Your task to perform on an android device: When is my next meeting? Image 0: 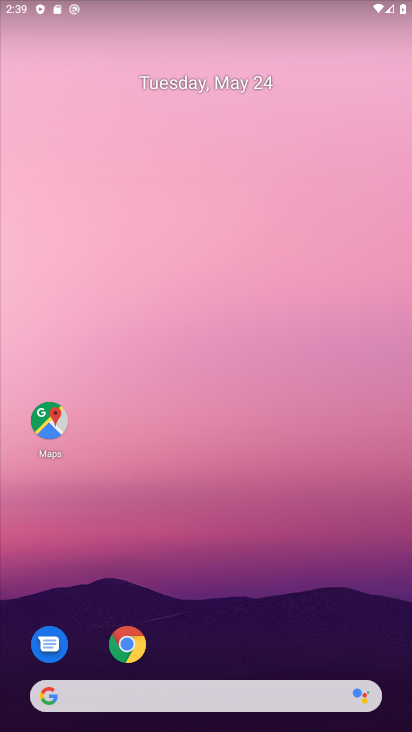
Step 0: drag from (318, 578) to (280, 115)
Your task to perform on an android device: When is my next meeting? Image 1: 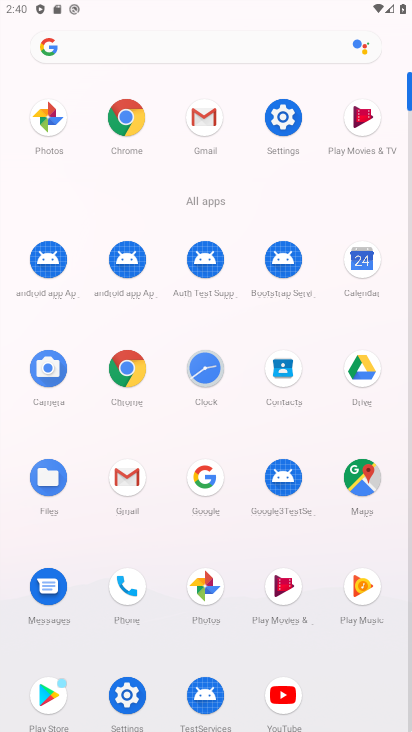
Step 1: click (365, 269)
Your task to perform on an android device: When is my next meeting? Image 2: 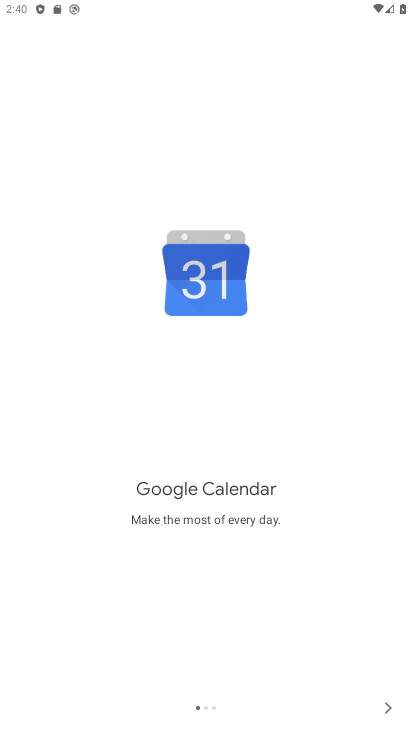
Step 2: click (388, 703)
Your task to perform on an android device: When is my next meeting? Image 3: 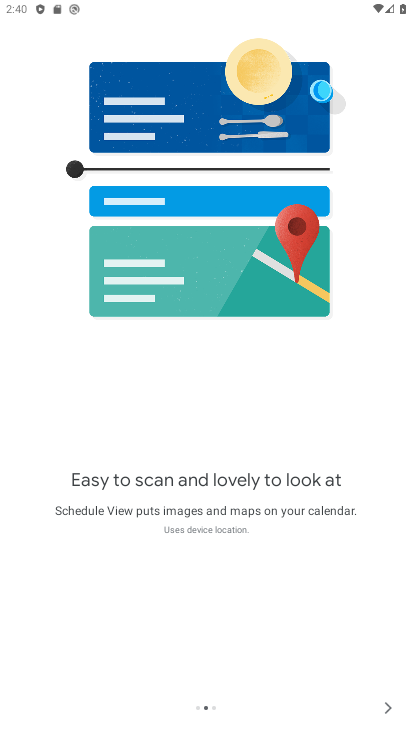
Step 3: click (389, 702)
Your task to perform on an android device: When is my next meeting? Image 4: 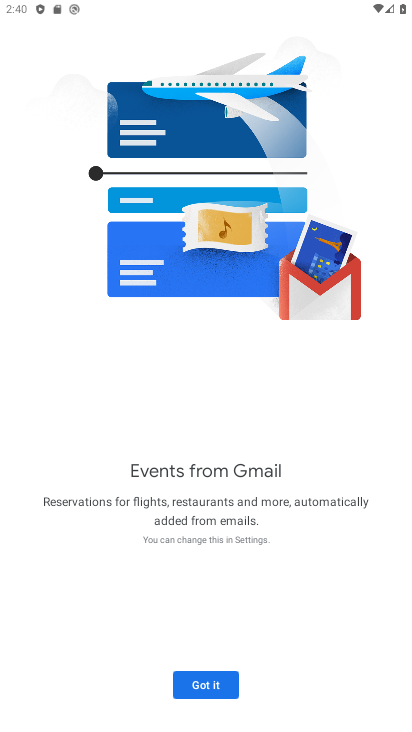
Step 4: click (389, 702)
Your task to perform on an android device: When is my next meeting? Image 5: 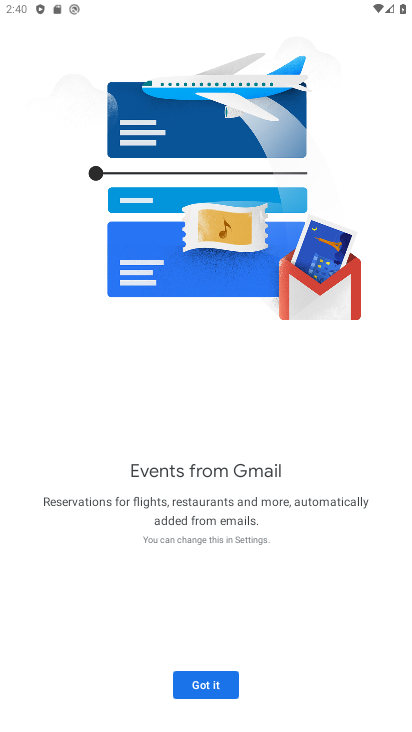
Step 5: click (214, 683)
Your task to perform on an android device: When is my next meeting? Image 6: 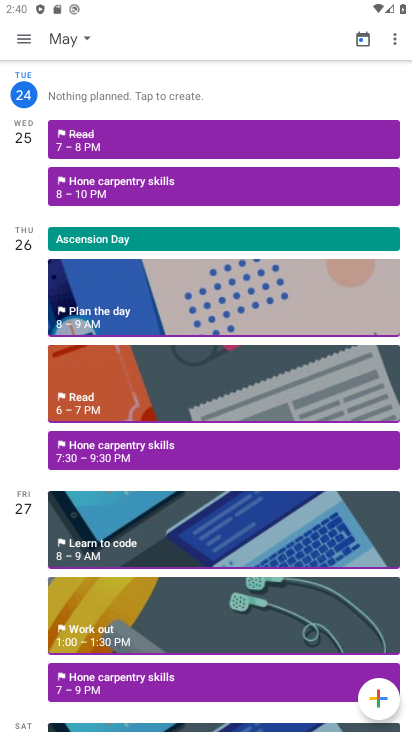
Step 6: drag from (244, 681) to (212, 327)
Your task to perform on an android device: When is my next meeting? Image 7: 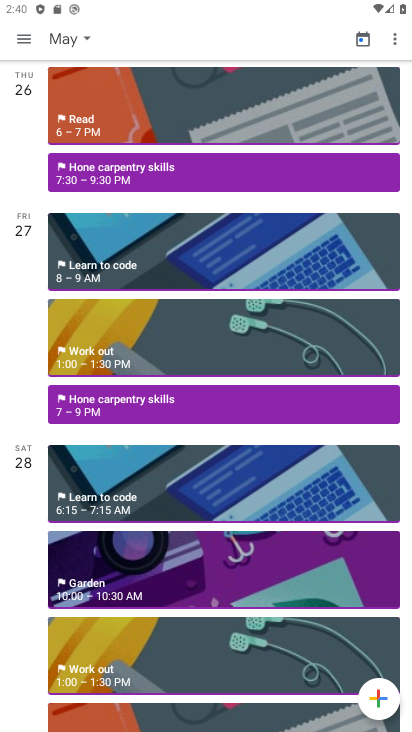
Step 7: drag from (147, 597) to (177, 304)
Your task to perform on an android device: When is my next meeting? Image 8: 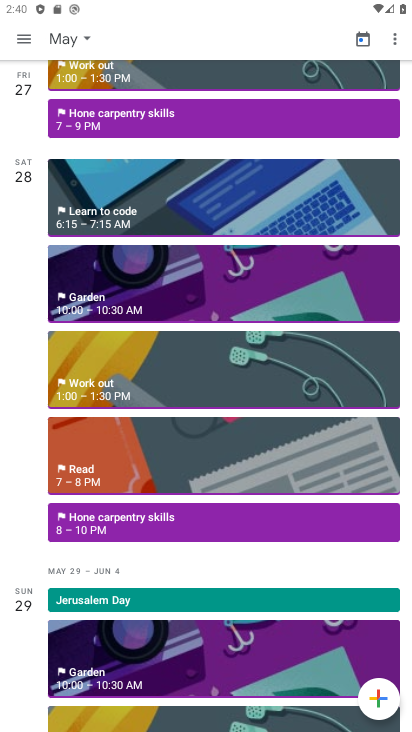
Step 8: drag from (205, 637) to (239, 333)
Your task to perform on an android device: When is my next meeting? Image 9: 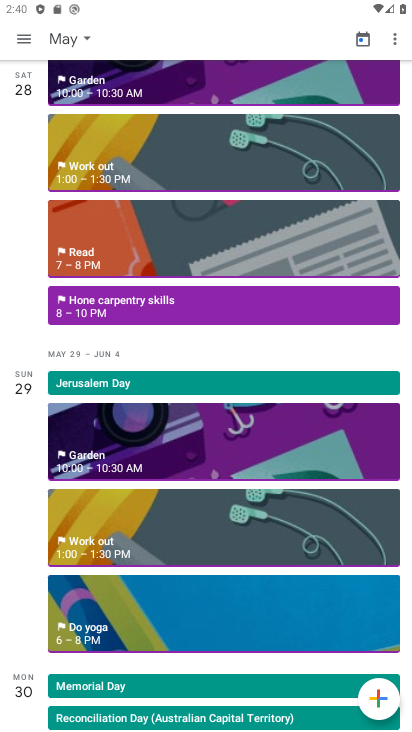
Step 9: drag from (197, 511) to (218, 287)
Your task to perform on an android device: When is my next meeting? Image 10: 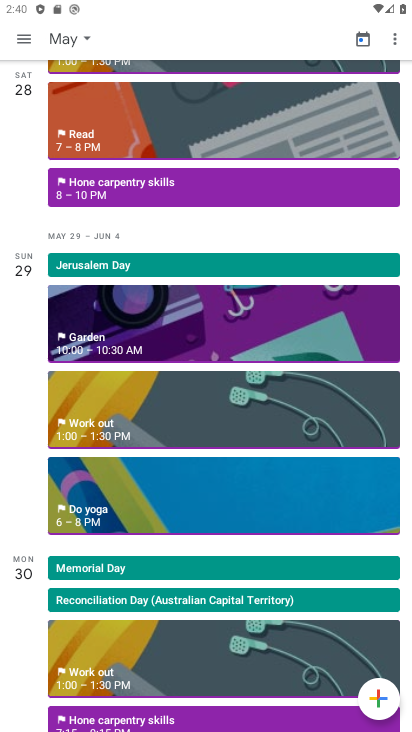
Step 10: drag from (254, 584) to (272, 331)
Your task to perform on an android device: When is my next meeting? Image 11: 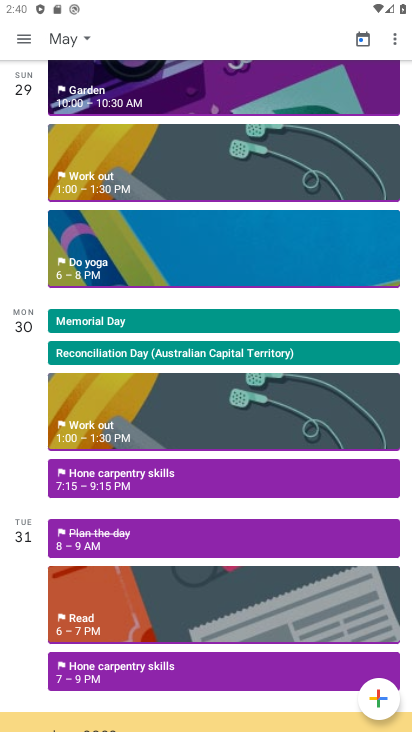
Step 11: drag from (218, 622) to (270, 357)
Your task to perform on an android device: When is my next meeting? Image 12: 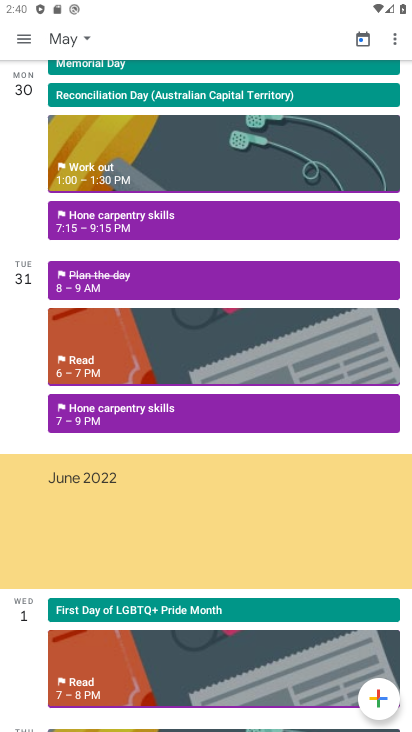
Step 12: drag from (223, 651) to (232, 272)
Your task to perform on an android device: When is my next meeting? Image 13: 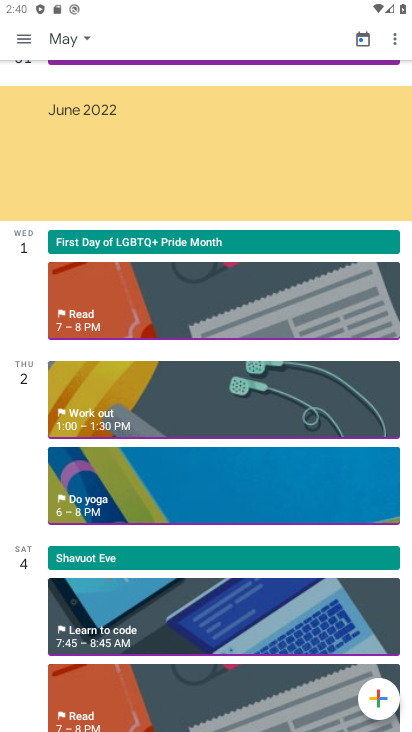
Step 13: drag from (209, 637) to (208, 293)
Your task to perform on an android device: When is my next meeting? Image 14: 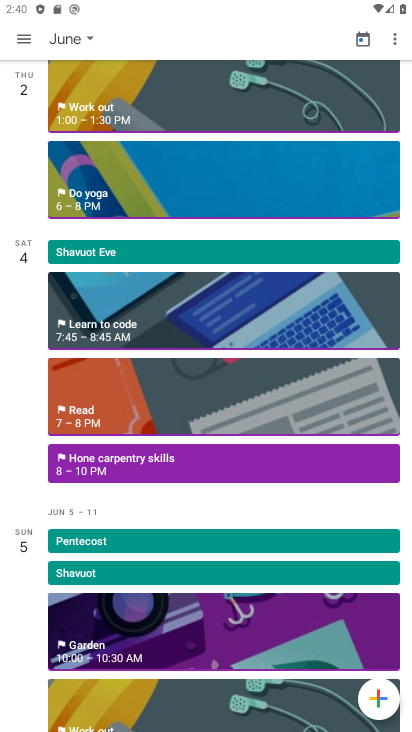
Step 14: drag from (235, 628) to (236, 311)
Your task to perform on an android device: When is my next meeting? Image 15: 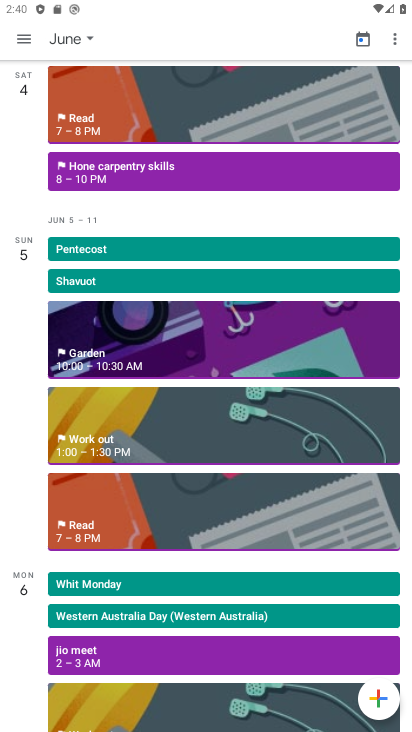
Step 15: drag from (176, 649) to (184, 306)
Your task to perform on an android device: When is my next meeting? Image 16: 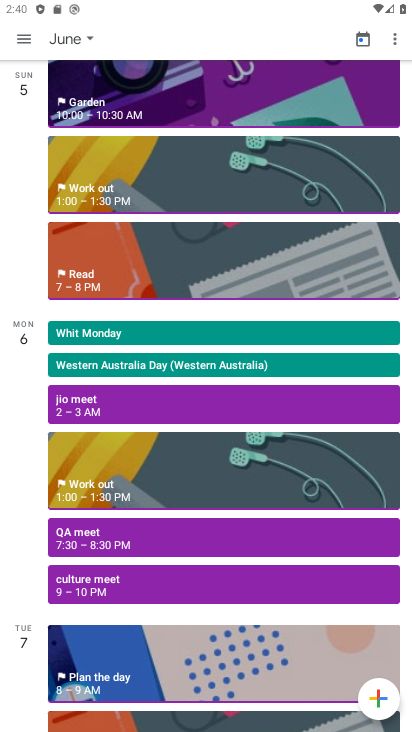
Step 16: click (110, 546)
Your task to perform on an android device: When is my next meeting? Image 17: 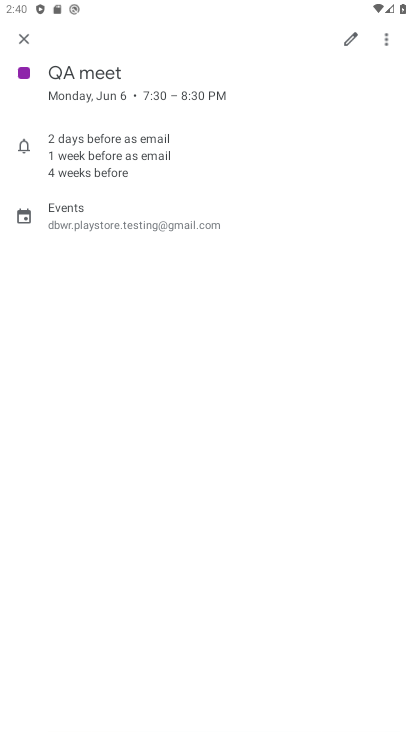
Step 17: task complete